Your task to perform on an android device: turn on data saver in the chrome app Image 0: 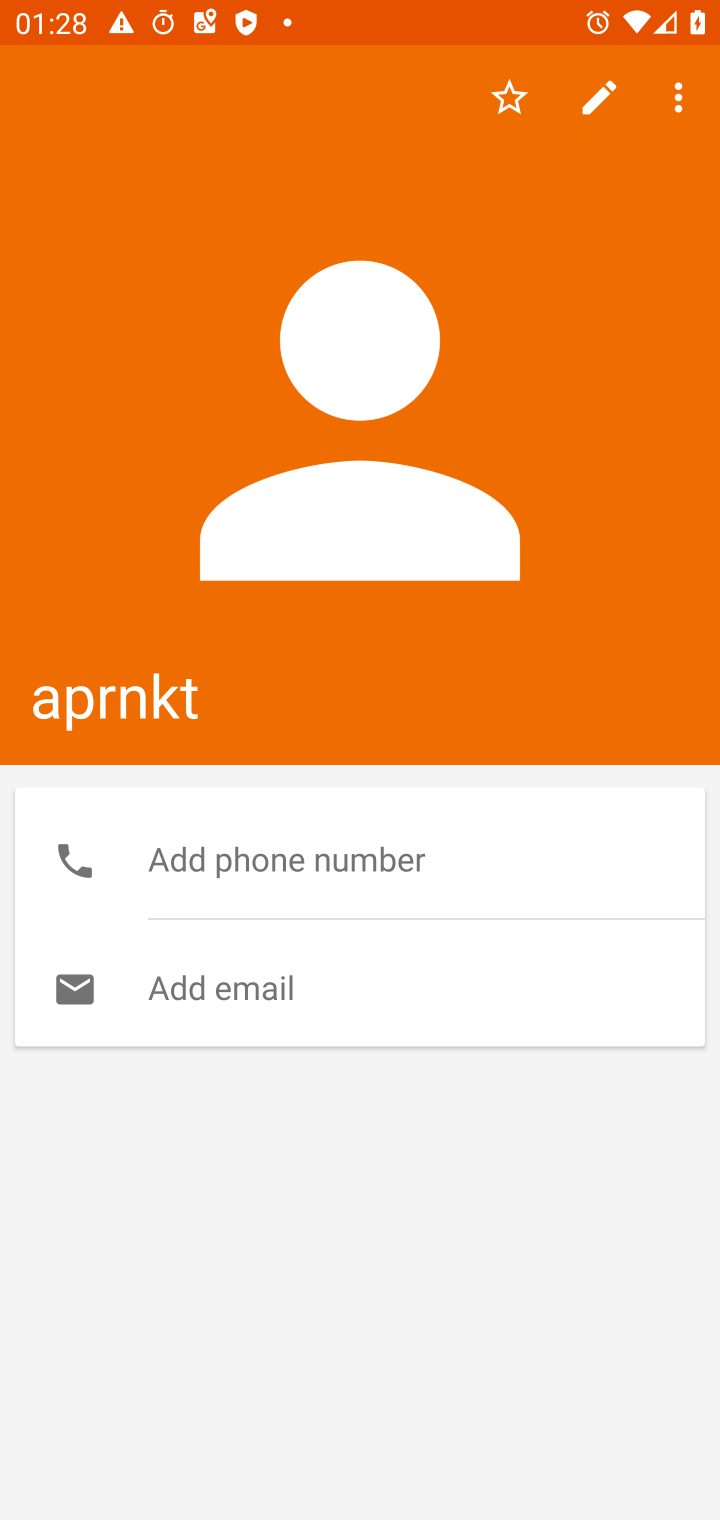
Step 0: press home button
Your task to perform on an android device: turn on data saver in the chrome app Image 1: 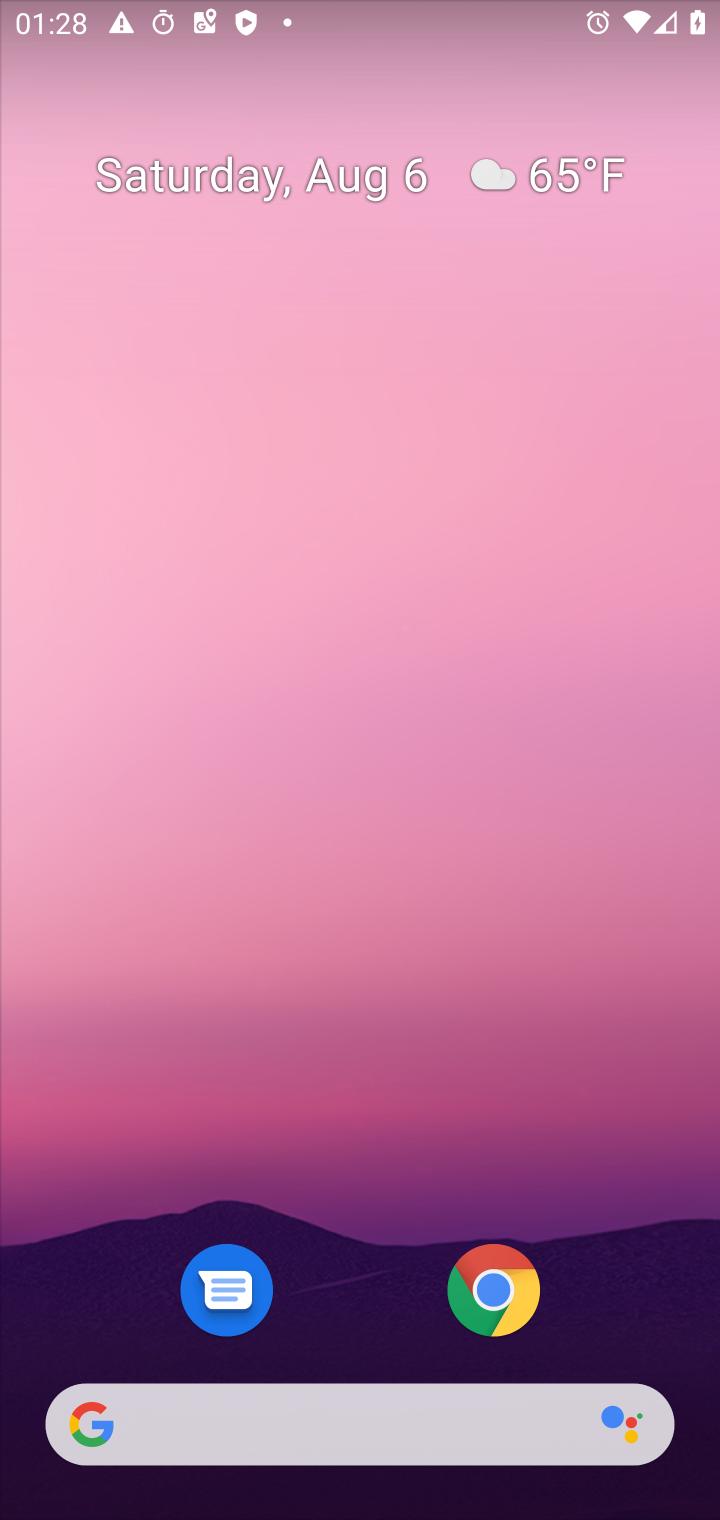
Step 1: drag from (402, 1341) to (437, 138)
Your task to perform on an android device: turn on data saver in the chrome app Image 2: 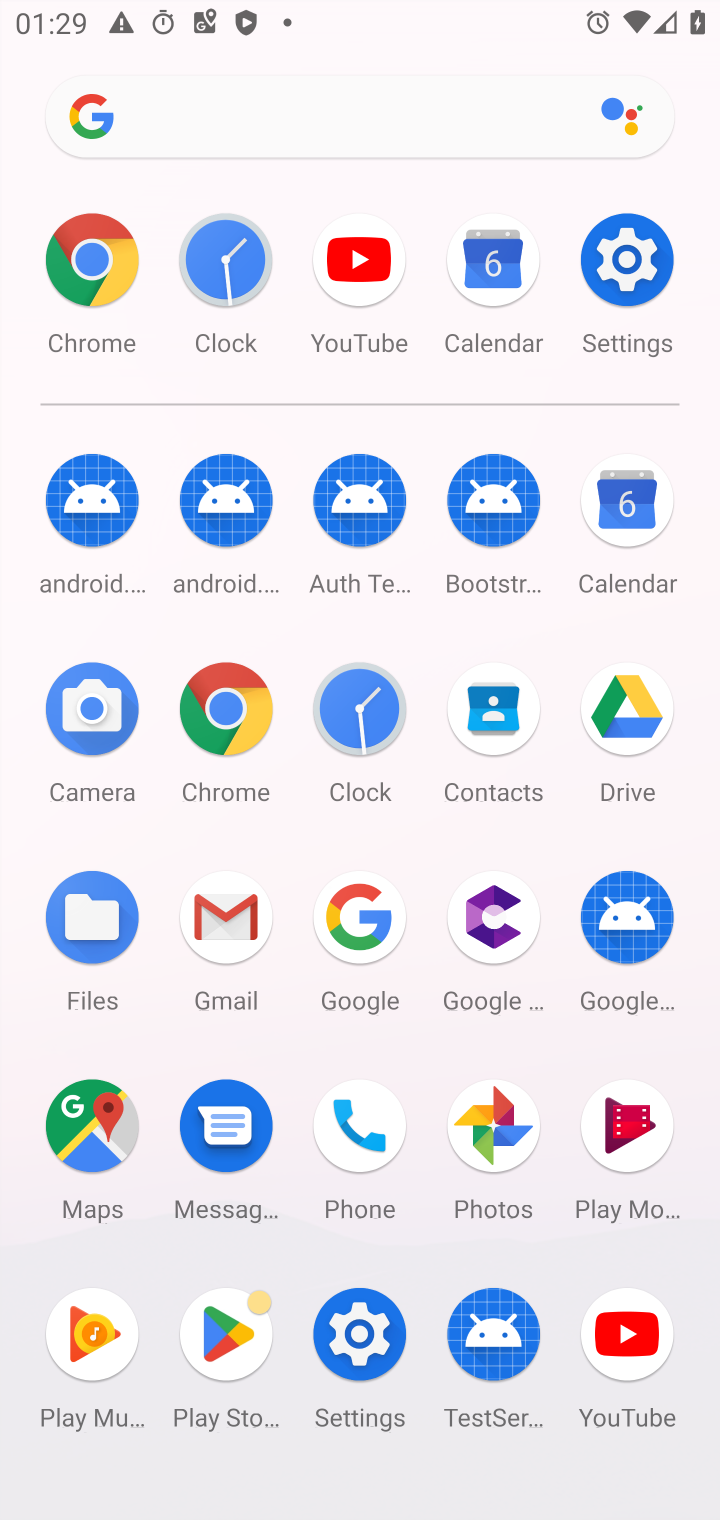
Step 2: click (211, 686)
Your task to perform on an android device: turn on data saver in the chrome app Image 3: 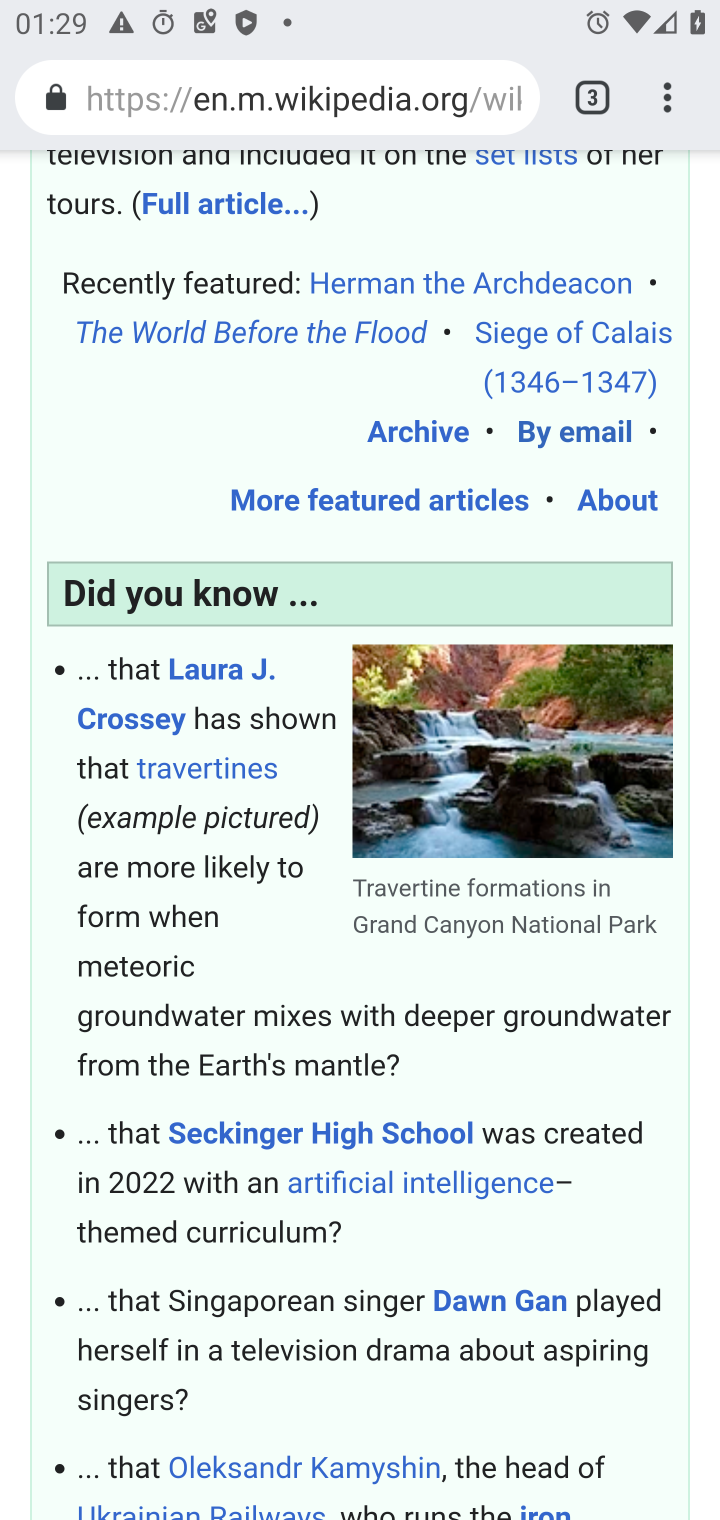
Step 3: click (664, 109)
Your task to perform on an android device: turn on data saver in the chrome app Image 4: 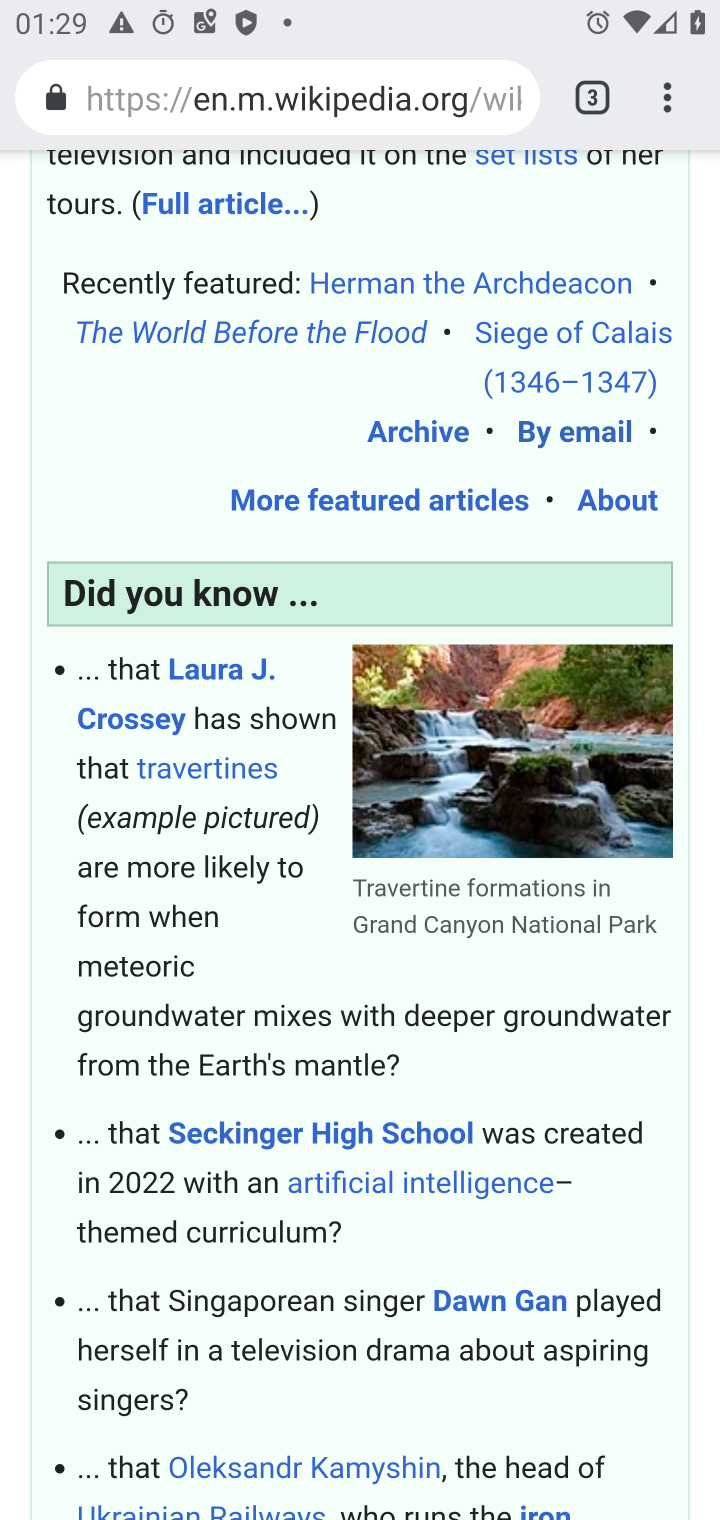
Step 4: click (665, 96)
Your task to perform on an android device: turn on data saver in the chrome app Image 5: 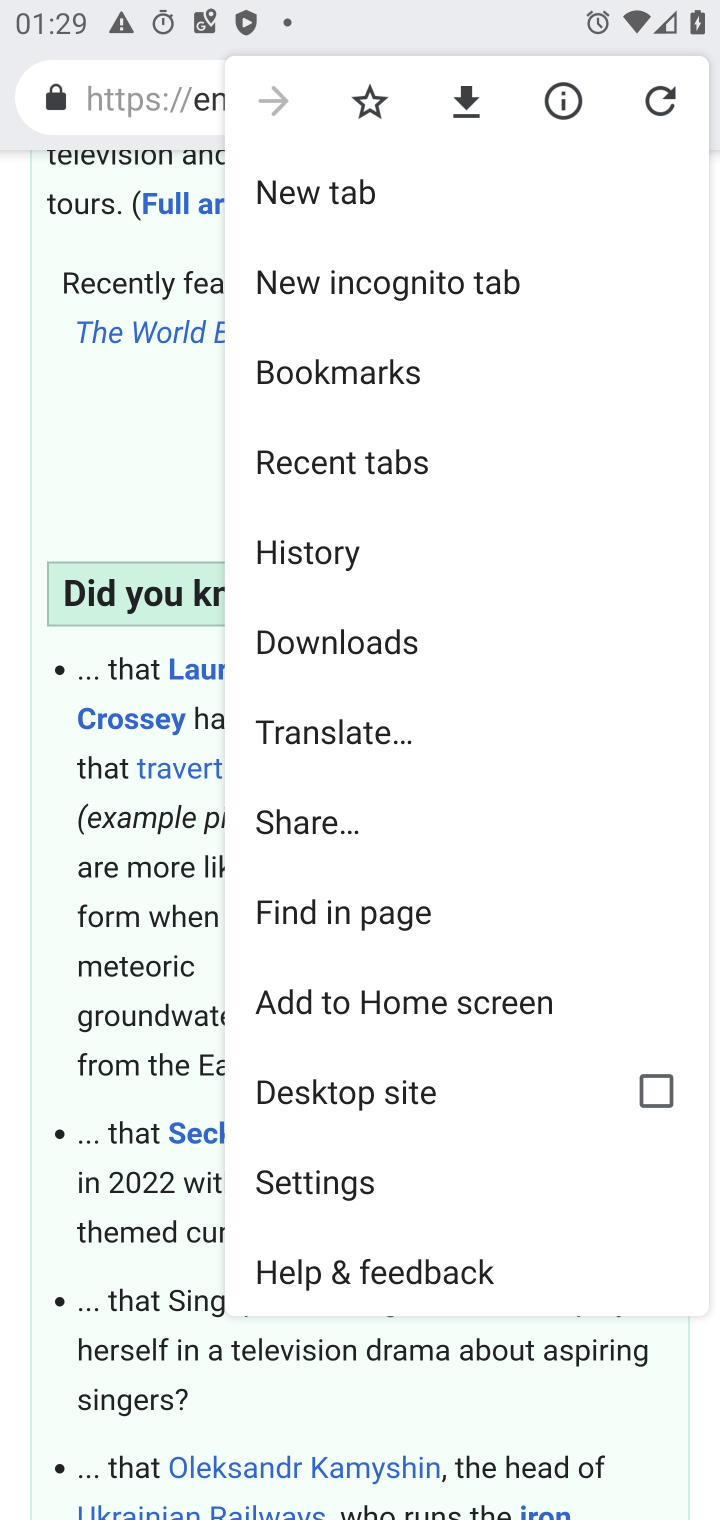
Step 5: click (256, 1162)
Your task to perform on an android device: turn on data saver in the chrome app Image 6: 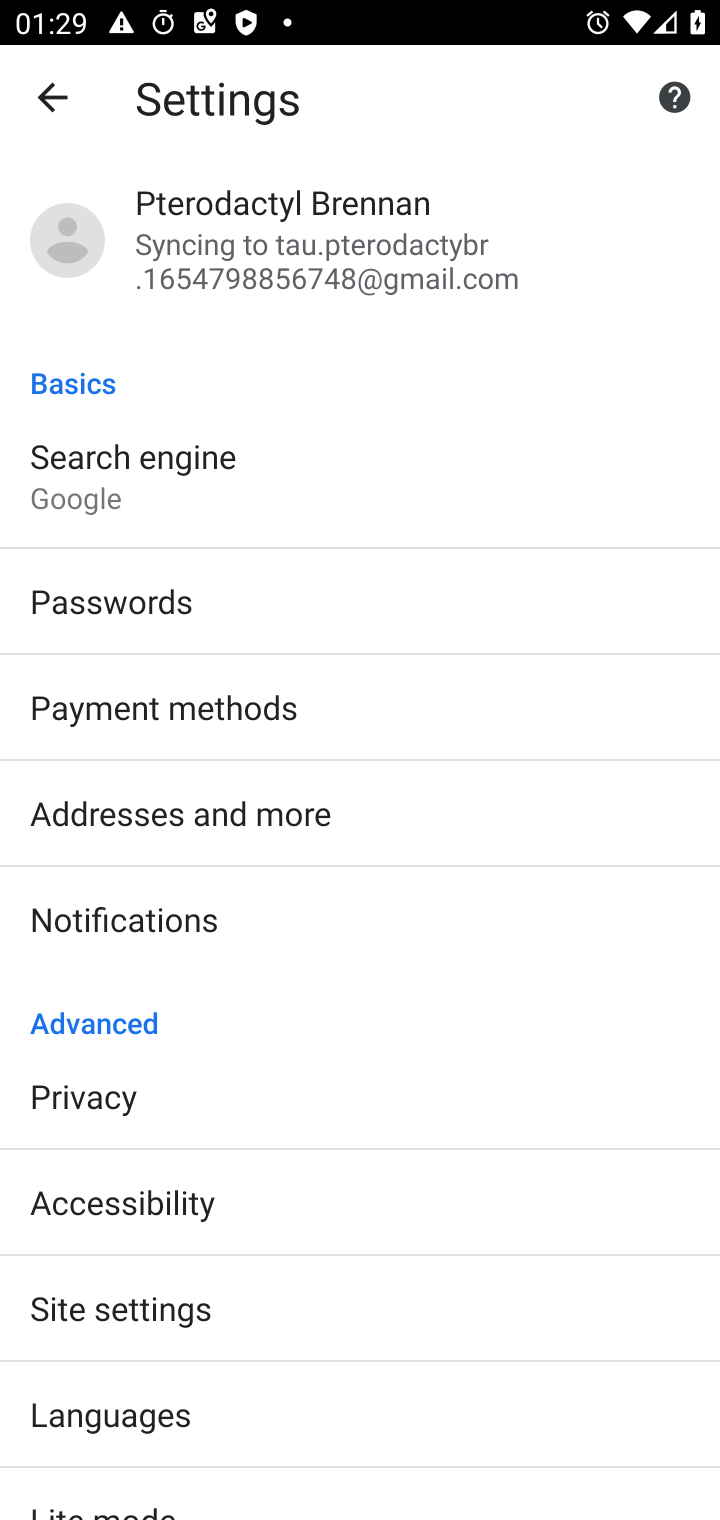
Step 6: click (242, 1497)
Your task to perform on an android device: turn on data saver in the chrome app Image 7: 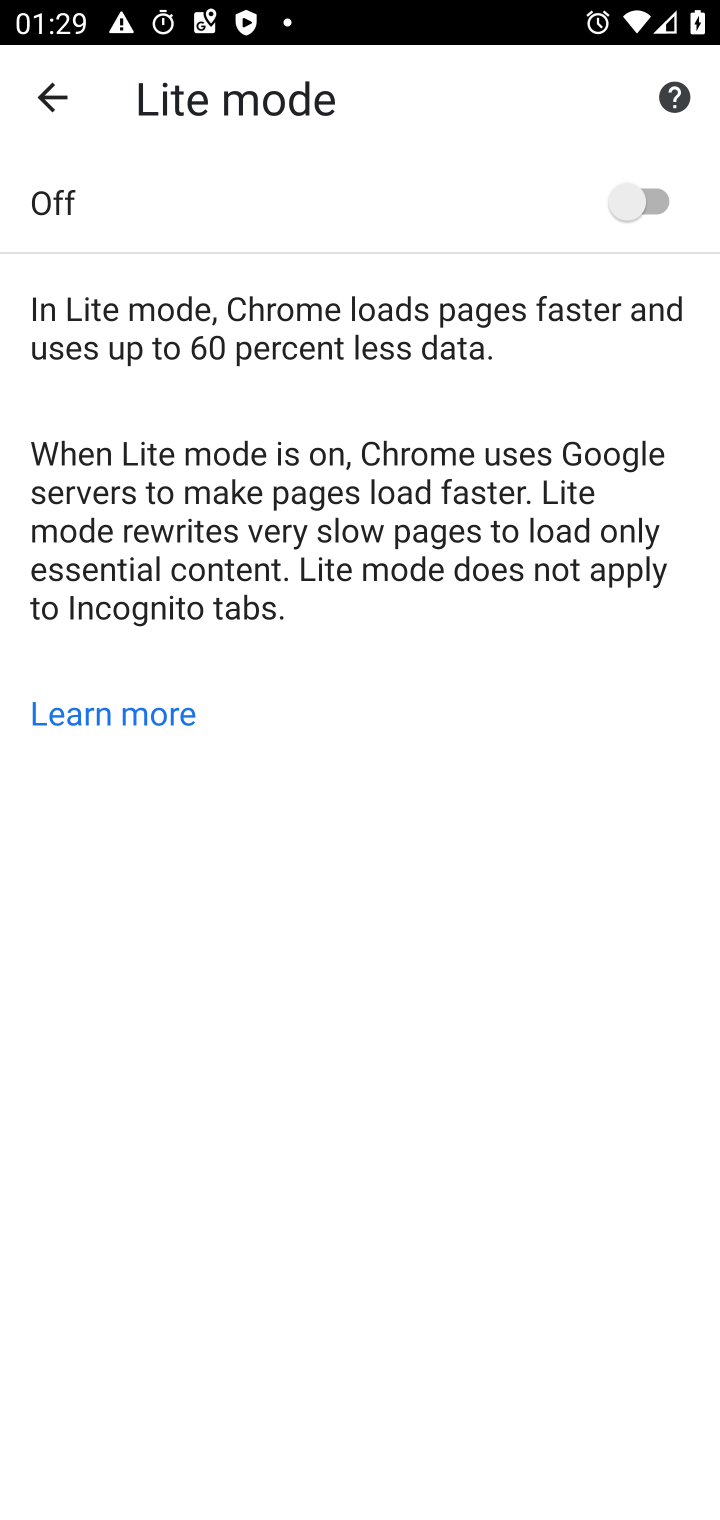
Step 7: click (640, 194)
Your task to perform on an android device: turn on data saver in the chrome app Image 8: 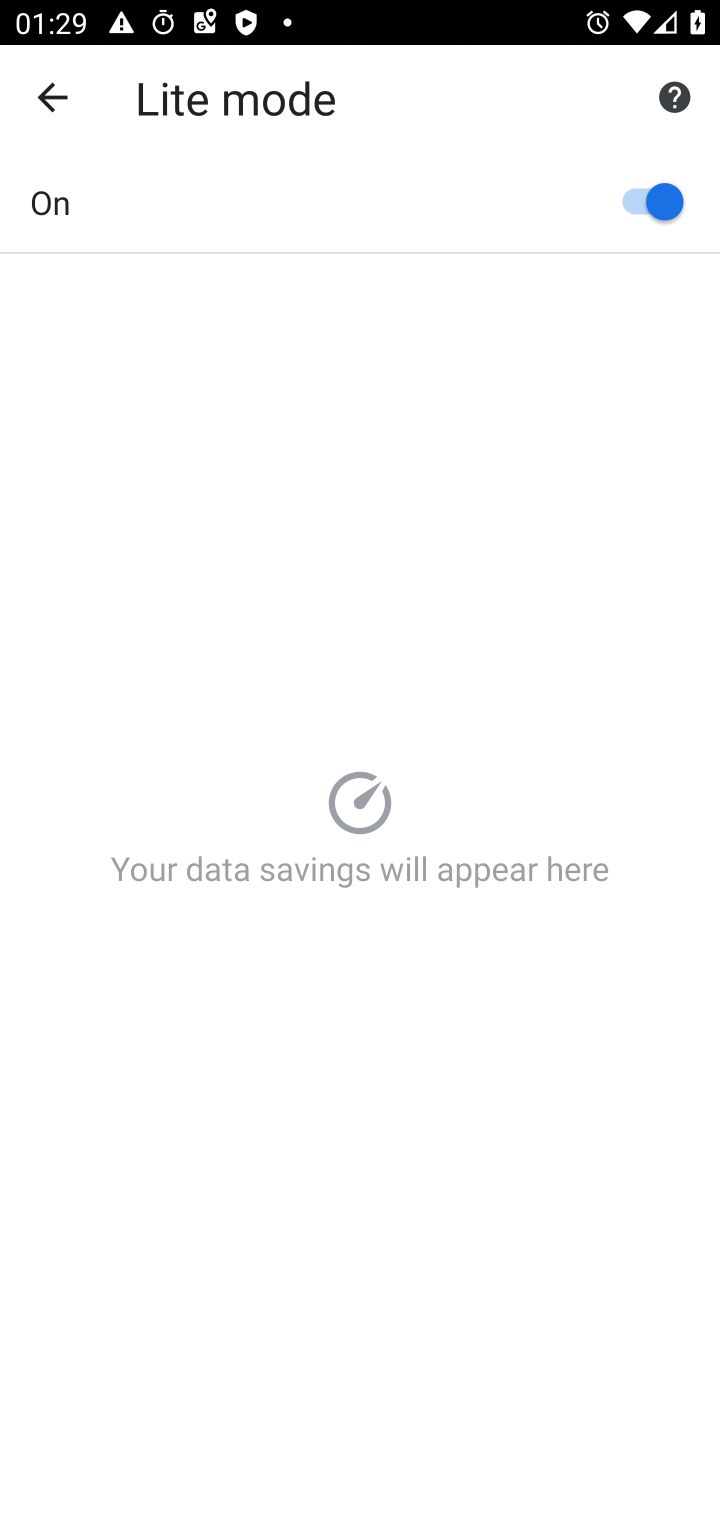
Step 8: task complete